Your task to perform on an android device: Open ESPN.com Image 0: 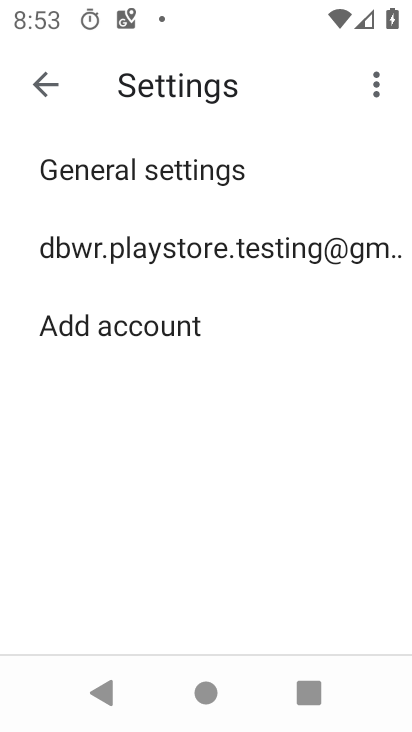
Step 0: press home button
Your task to perform on an android device: Open ESPN.com Image 1: 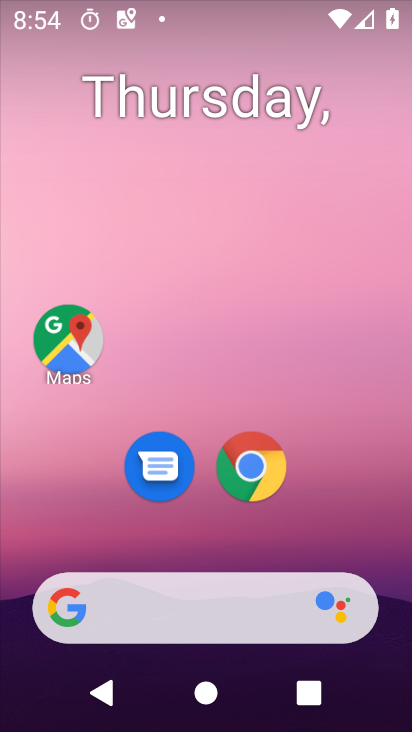
Step 1: click (187, 602)
Your task to perform on an android device: Open ESPN.com Image 2: 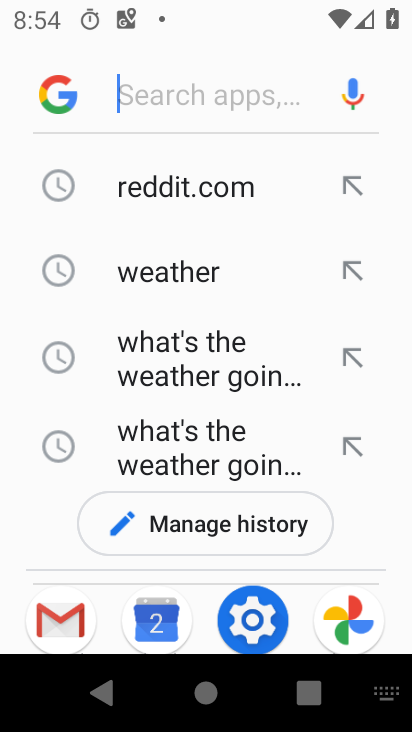
Step 2: type "ESPN.com"
Your task to perform on an android device: Open ESPN.com Image 3: 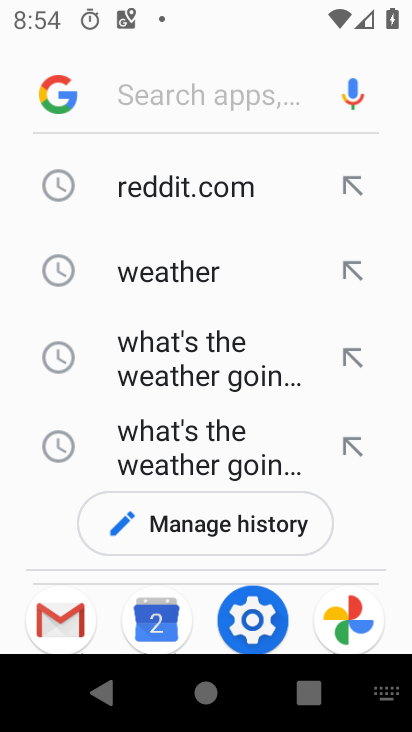
Step 3: click (187, 88)
Your task to perform on an android device: Open ESPN.com Image 4: 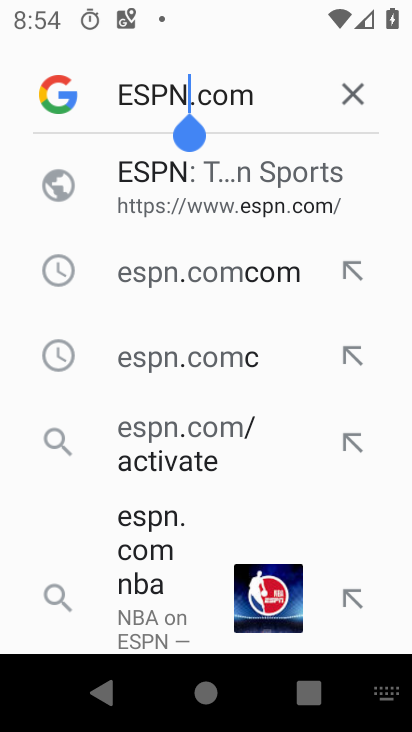
Step 4: click (226, 181)
Your task to perform on an android device: Open ESPN.com Image 5: 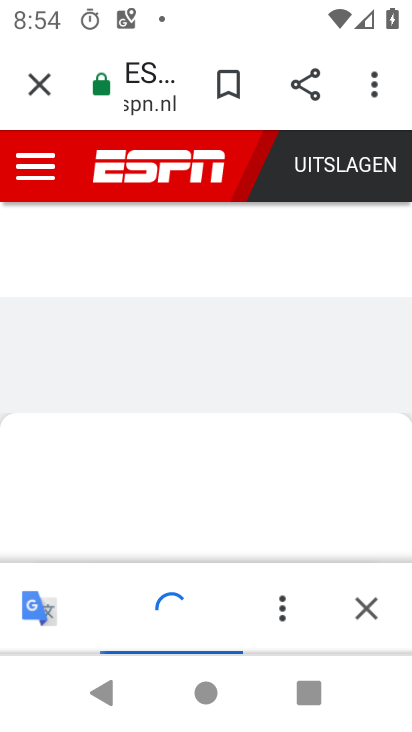
Step 5: task complete